Your task to perform on an android device: delete a single message in the gmail app Image 0: 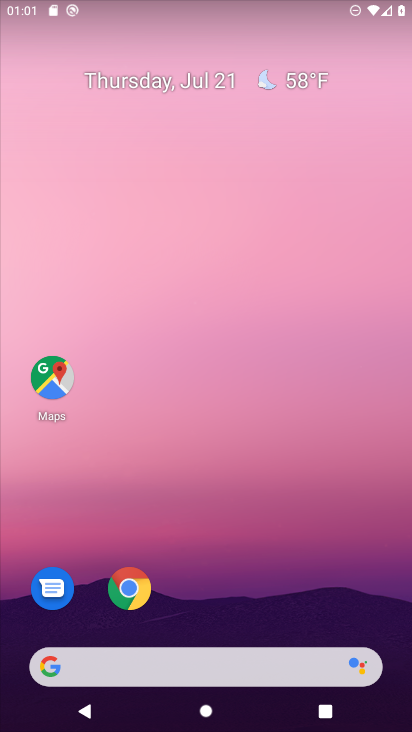
Step 0: drag from (277, 563) to (262, 301)
Your task to perform on an android device: delete a single message in the gmail app Image 1: 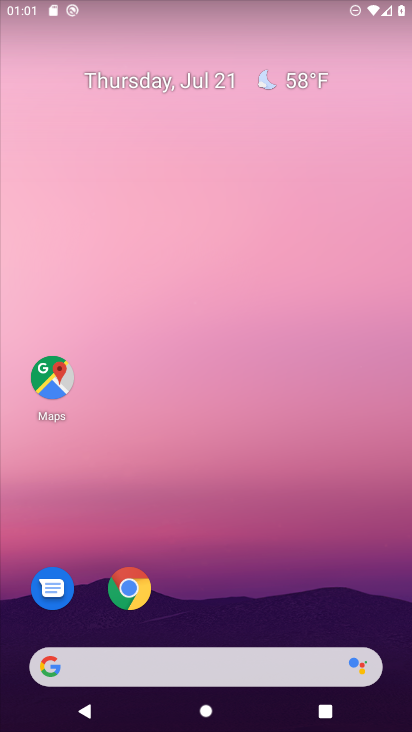
Step 1: drag from (244, 633) to (253, 348)
Your task to perform on an android device: delete a single message in the gmail app Image 2: 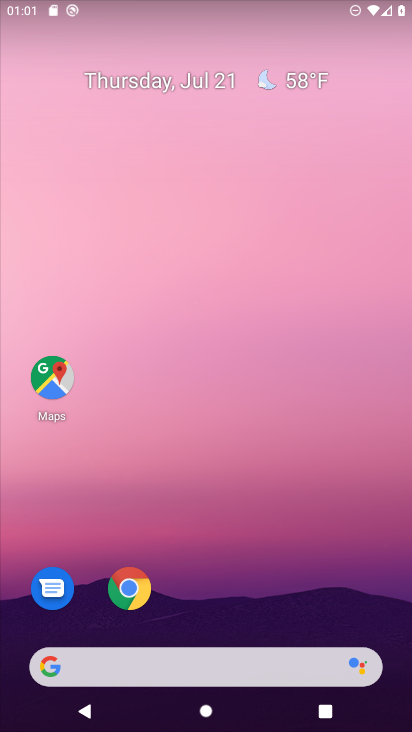
Step 2: drag from (219, 612) to (227, 39)
Your task to perform on an android device: delete a single message in the gmail app Image 3: 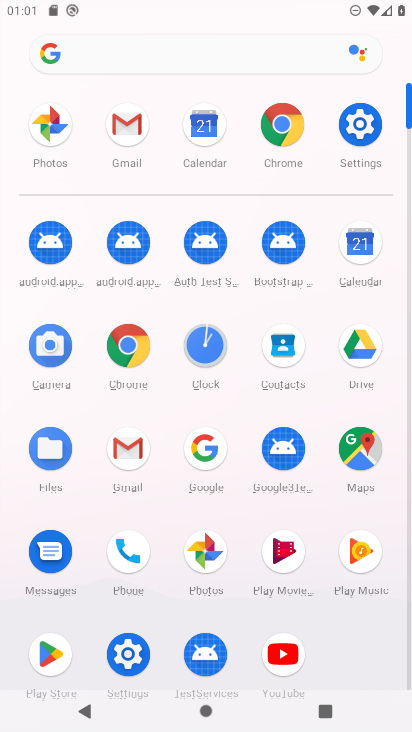
Step 3: click (137, 450)
Your task to perform on an android device: delete a single message in the gmail app Image 4: 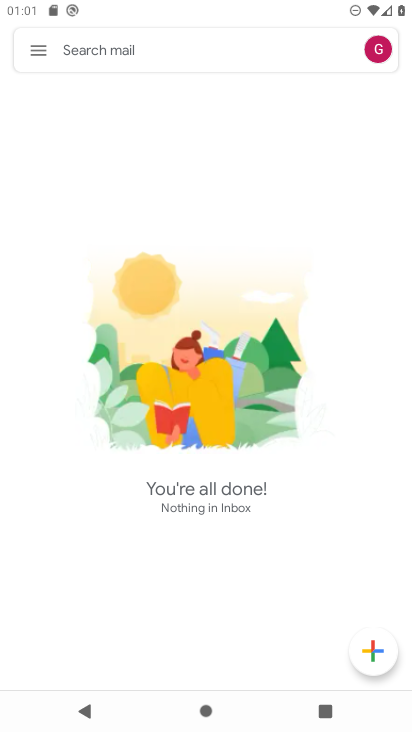
Step 4: task complete